Your task to perform on an android device: see sites visited before in the chrome app Image 0: 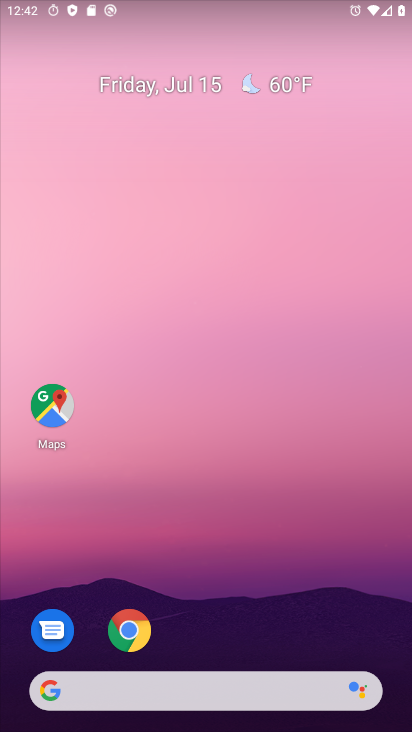
Step 0: click (133, 625)
Your task to perform on an android device: see sites visited before in the chrome app Image 1: 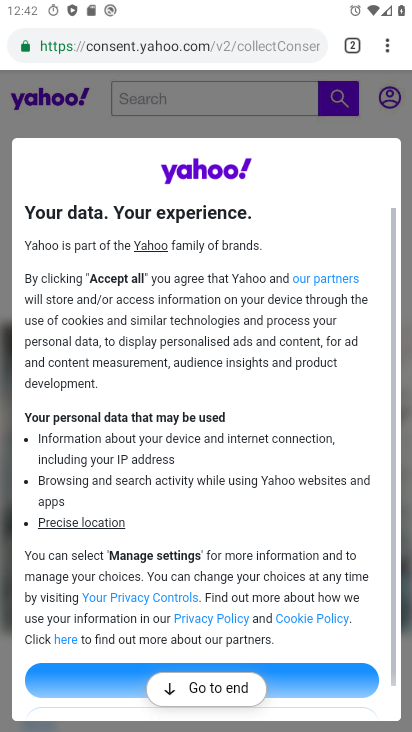
Step 1: click (385, 46)
Your task to perform on an android device: see sites visited before in the chrome app Image 2: 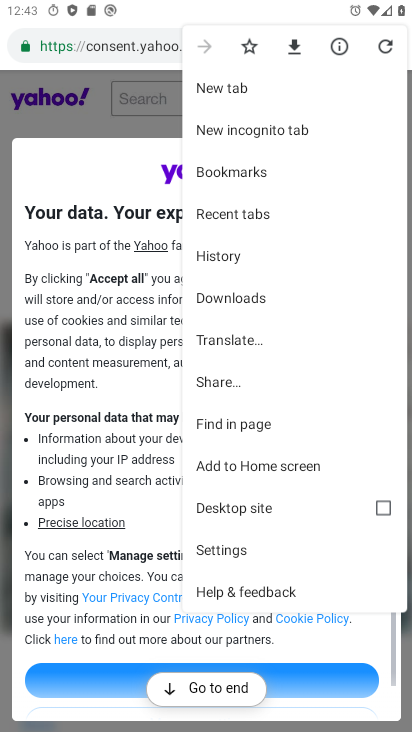
Step 2: click (234, 252)
Your task to perform on an android device: see sites visited before in the chrome app Image 3: 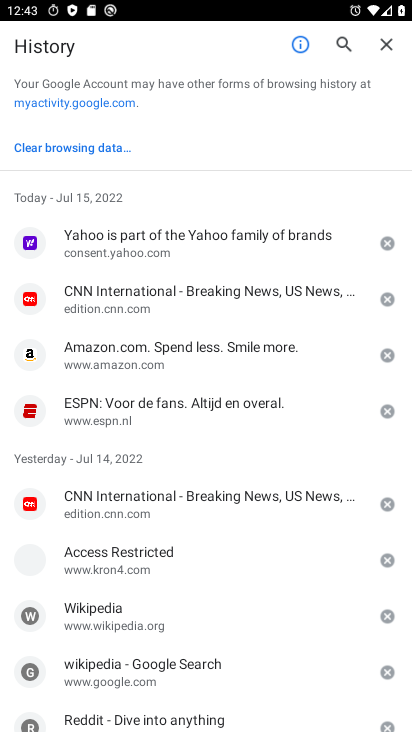
Step 3: task complete